Your task to perform on an android device: open chrome and create a bookmark for the current page Image 0: 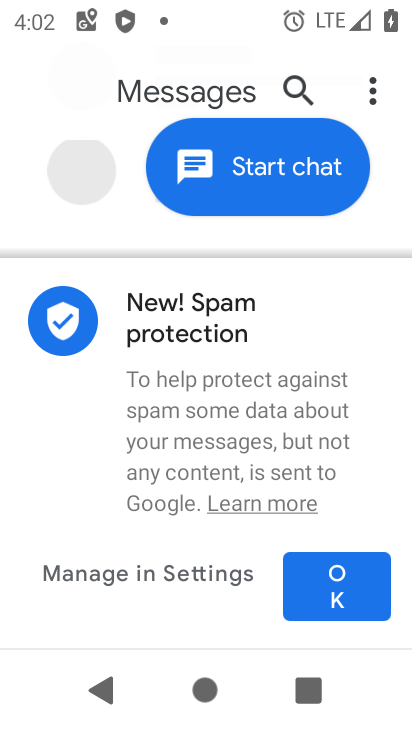
Step 0: press home button
Your task to perform on an android device: open chrome and create a bookmark for the current page Image 1: 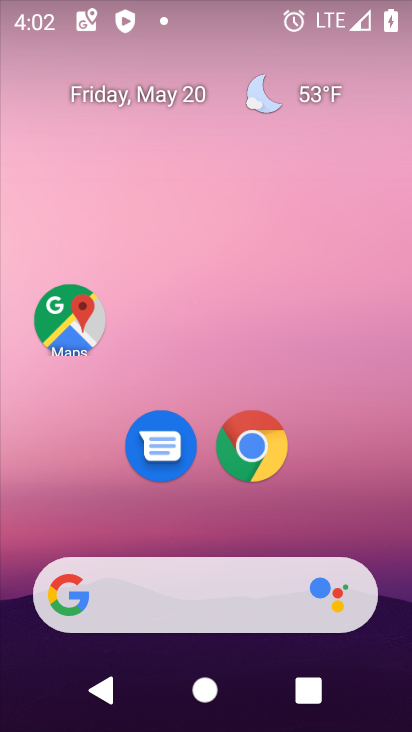
Step 1: click (265, 461)
Your task to perform on an android device: open chrome and create a bookmark for the current page Image 2: 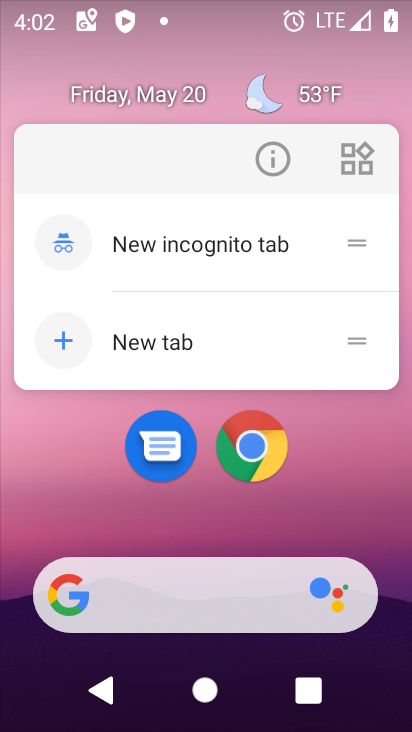
Step 2: click (265, 460)
Your task to perform on an android device: open chrome and create a bookmark for the current page Image 3: 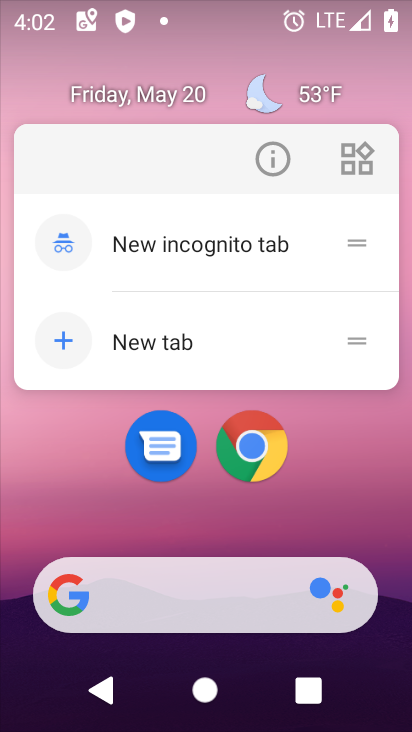
Step 3: click (265, 460)
Your task to perform on an android device: open chrome and create a bookmark for the current page Image 4: 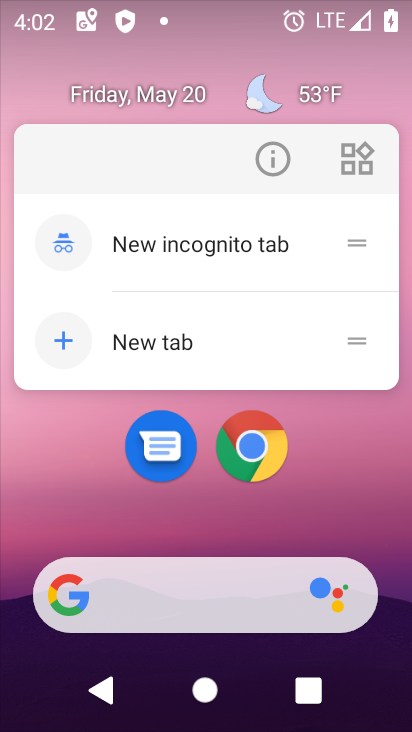
Step 4: click (265, 459)
Your task to perform on an android device: open chrome and create a bookmark for the current page Image 5: 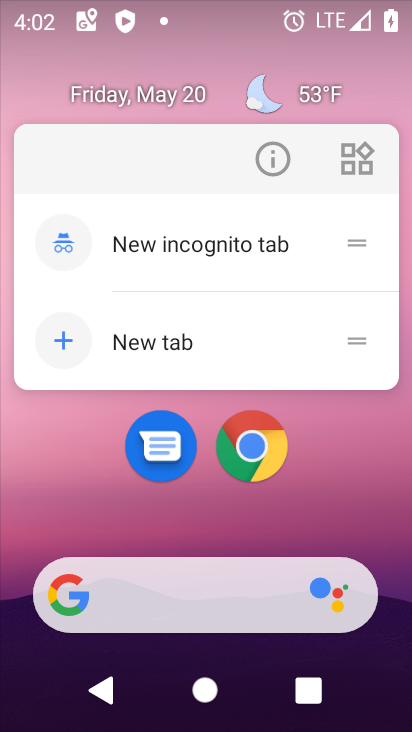
Step 5: click (310, 561)
Your task to perform on an android device: open chrome and create a bookmark for the current page Image 6: 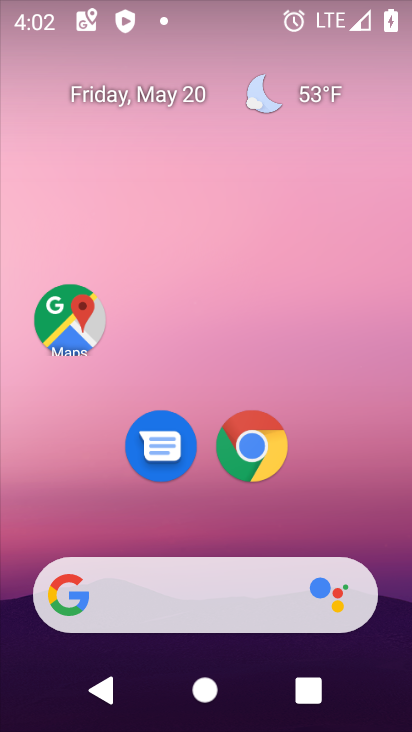
Step 6: drag from (311, 536) to (393, 19)
Your task to perform on an android device: open chrome and create a bookmark for the current page Image 7: 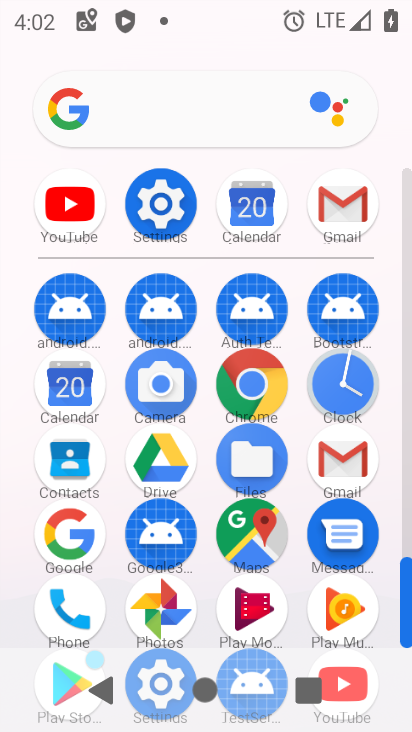
Step 7: click (241, 383)
Your task to perform on an android device: open chrome and create a bookmark for the current page Image 8: 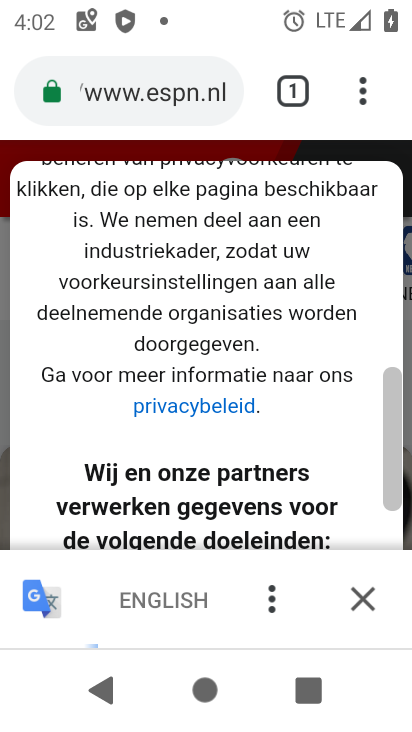
Step 8: task complete